Your task to perform on an android device: clear history in the chrome app Image 0: 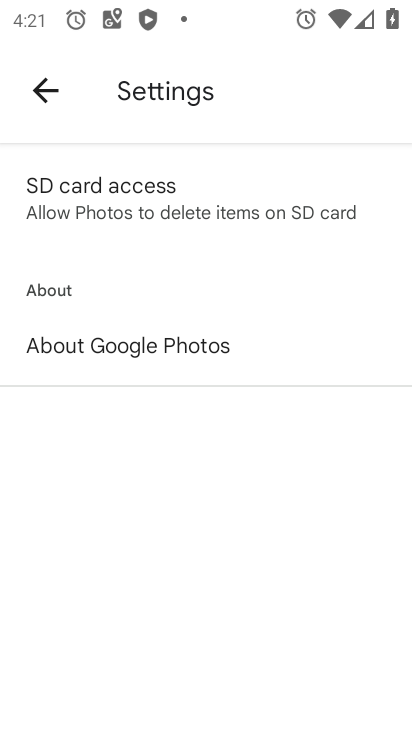
Step 0: press home button
Your task to perform on an android device: clear history in the chrome app Image 1: 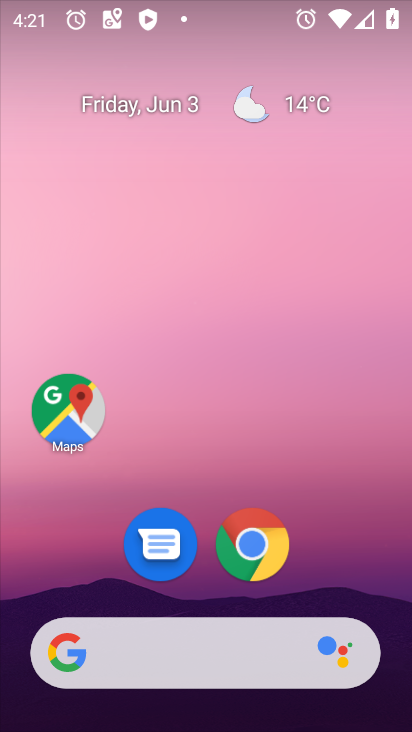
Step 1: click (254, 544)
Your task to perform on an android device: clear history in the chrome app Image 2: 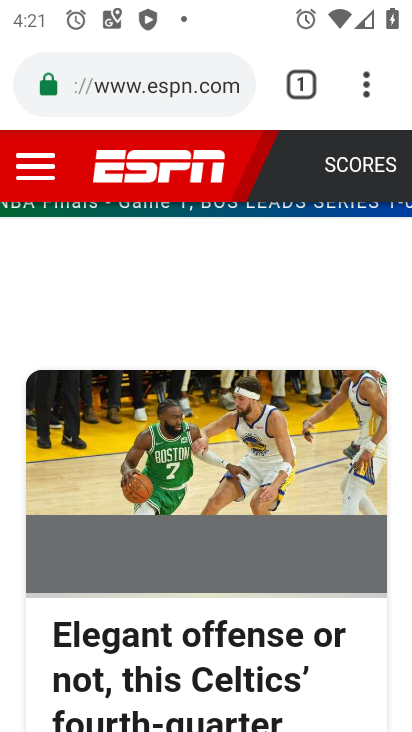
Step 2: click (366, 87)
Your task to perform on an android device: clear history in the chrome app Image 3: 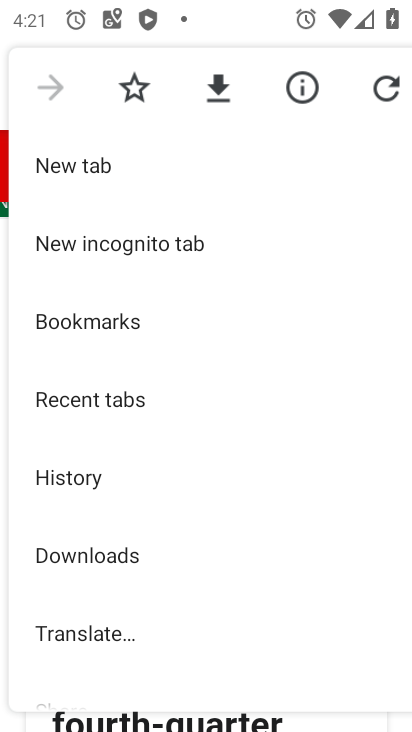
Step 3: click (99, 462)
Your task to perform on an android device: clear history in the chrome app Image 4: 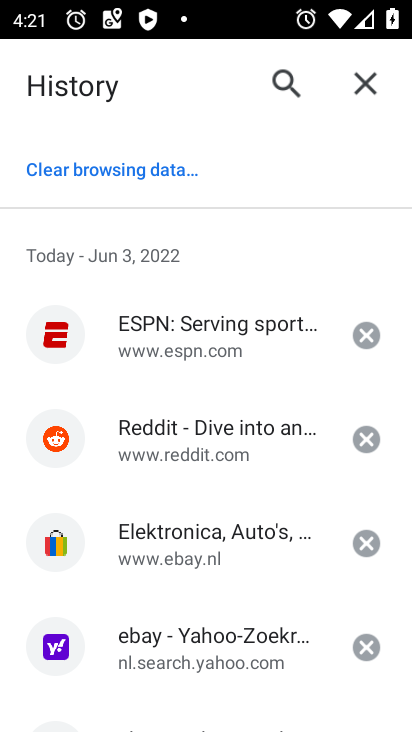
Step 4: click (112, 184)
Your task to perform on an android device: clear history in the chrome app Image 5: 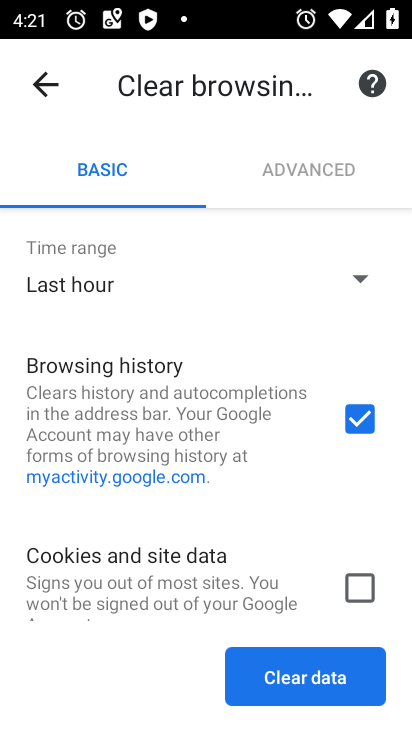
Step 5: click (315, 674)
Your task to perform on an android device: clear history in the chrome app Image 6: 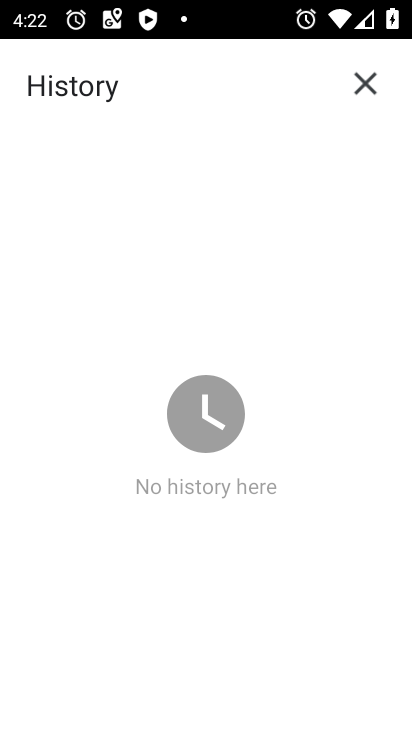
Step 6: task complete